Your task to perform on an android device: empty trash in google photos Image 0: 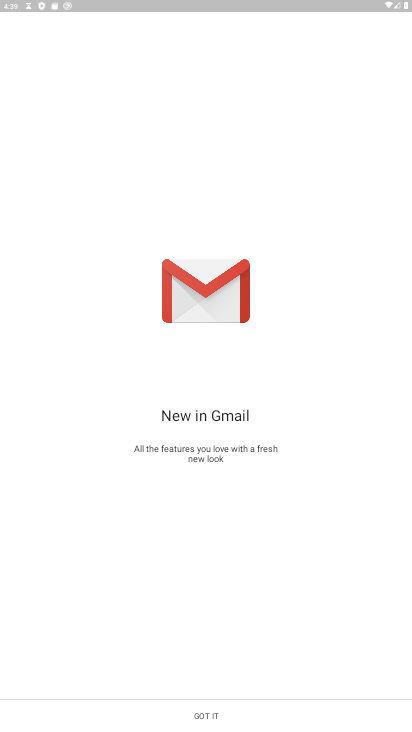
Step 0: press back button
Your task to perform on an android device: empty trash in google photos Image 1: 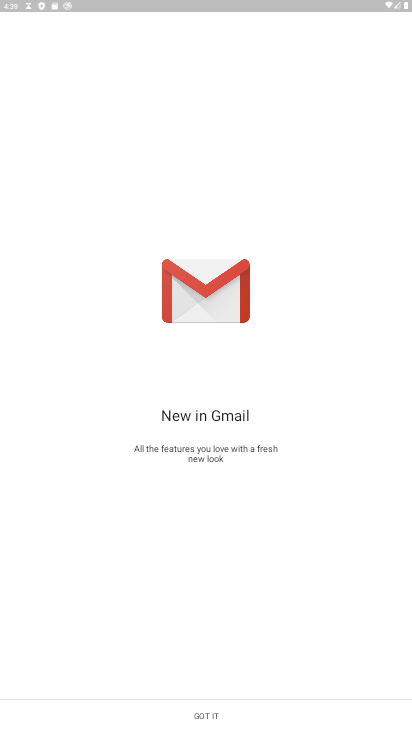
Step 1: press back button
Your task to perform on an android device: empty trash in google photos Image 2: 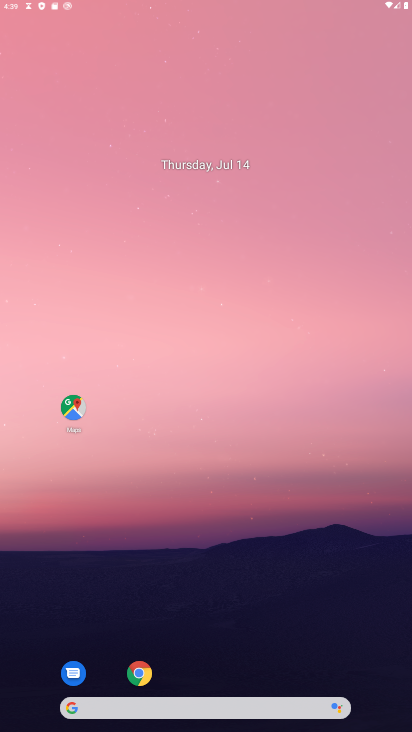
Step 2: press back button
Your task to perform on an android device: empty trash in google photos Image 3: 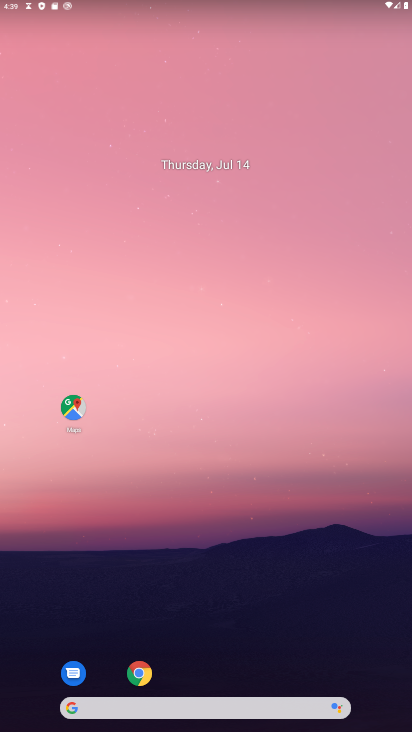
Step 3: drag from (263, 705) to (203, 253)
Your task to perform on an android device: empty trash in google photos Image 4: 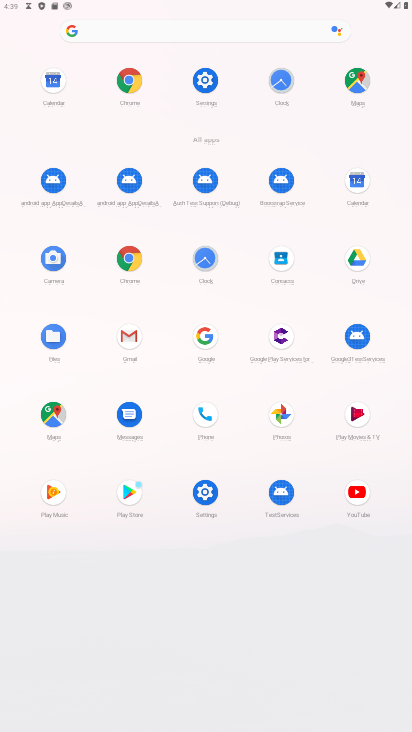
Step 4: click (280, 420)
Your task to perform on an android device: empty trash in google photos Image 5: 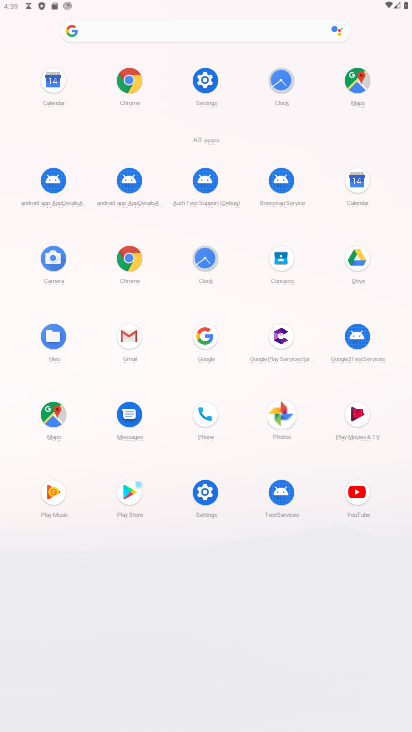
Step 5: click (281, 419)
Your task to perform on an android device: empty trash in google photos Image 6: 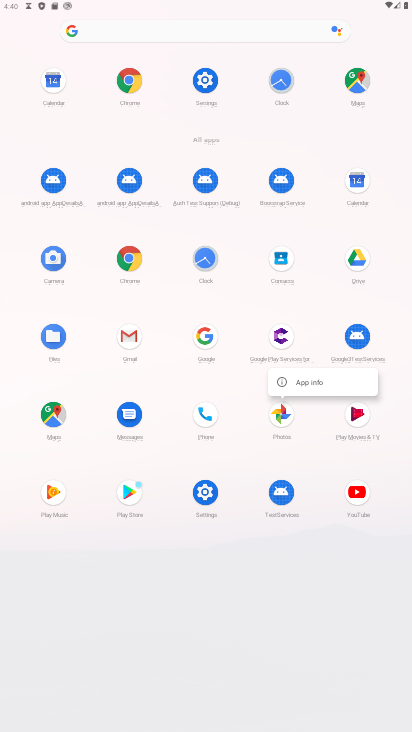
Step 6: click (280, 414)
Your task to perform on an android device: empty trash in google photos Image 7: 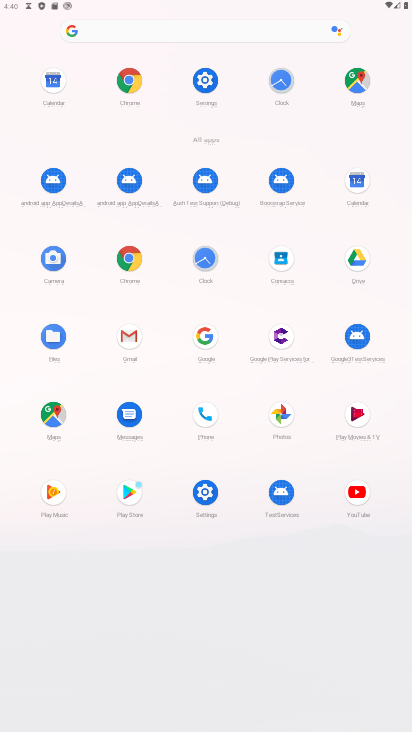
Step 7: click (280, 415)
Your task to perform on an android device: empty trash in google photos Image 8: 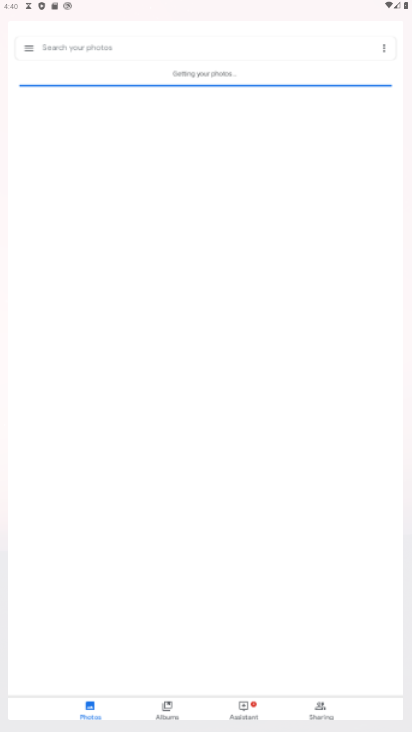
Step 8: click (280, 416)
Your task to perform on an android device: empty trash in google photos Image 9: 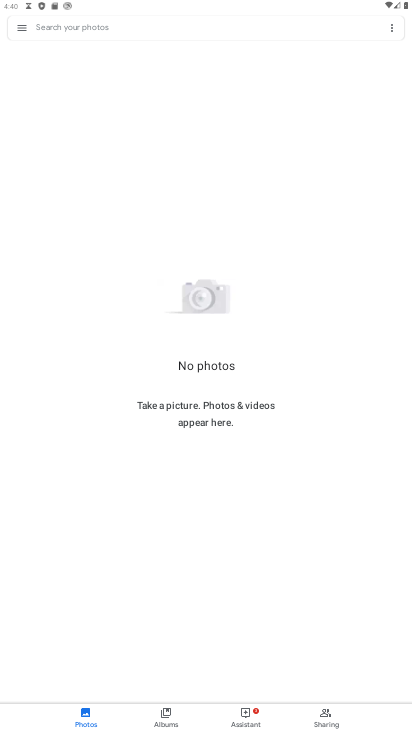
Step 9: task complete